Your task to perform on an android device: check battery use Image 0: 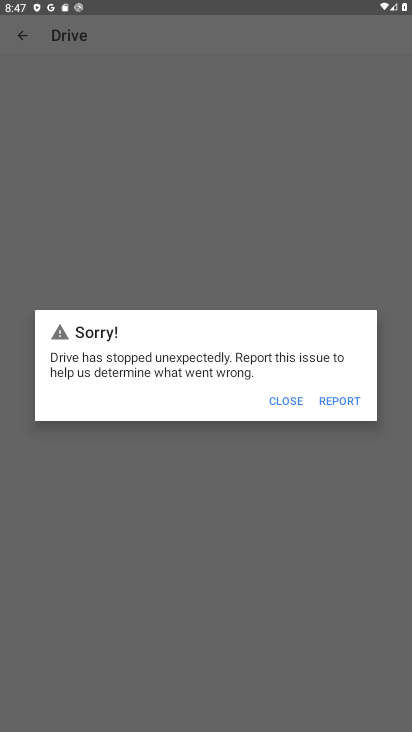
Step 0: press home button
Your task to perform on an android device: check battery use Image 1: 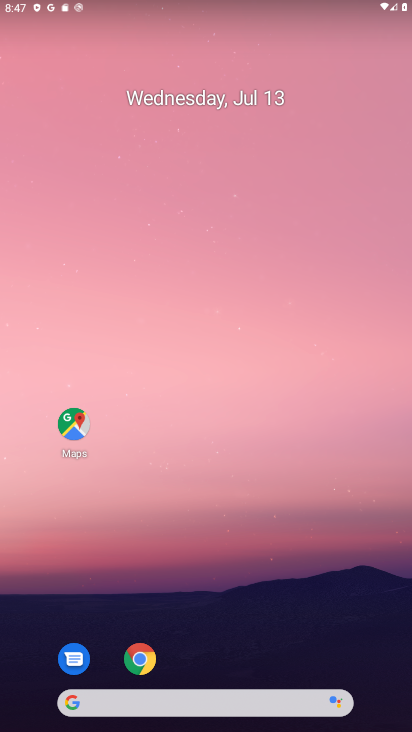
Step 1: drag from (234, 674) to (192, 298)
Your task to perform on an android device: check battery use Image 2: 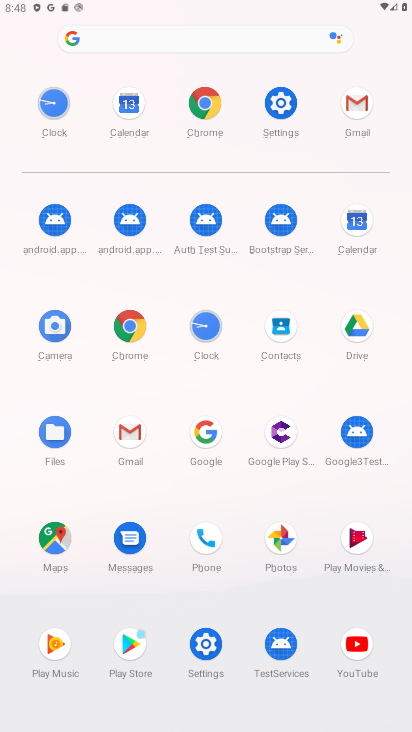
Step 2: click (281, 107)
Your task to perform on an android device: check battery use Image 3: 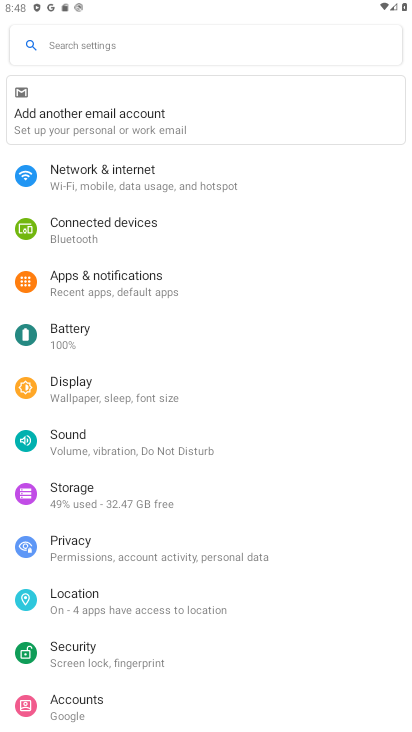
Step 3: click (123, 349)
Your task to perform on an android device: check battery use Image 4: 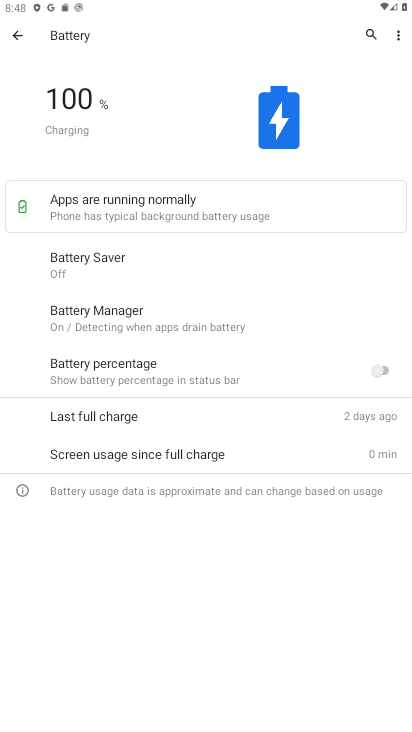
Step 4: task complete